Your task to perform on an android device: toggle priority inbox in the gmail app Image 0: 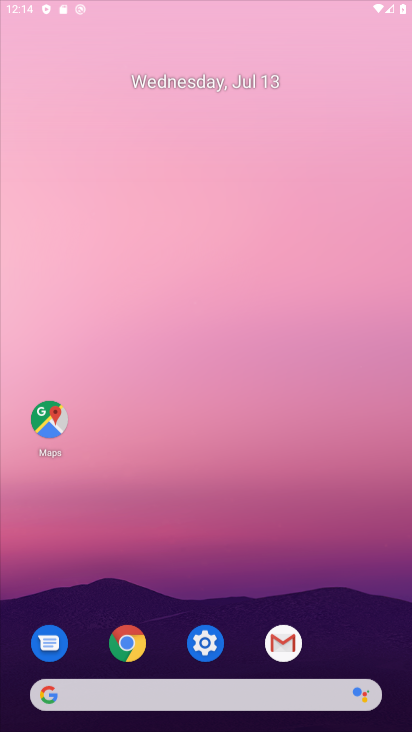
Step 0: click (206, 641)
Your task to perform on an android device: toggle priority inbox in the gmail app Image 1: 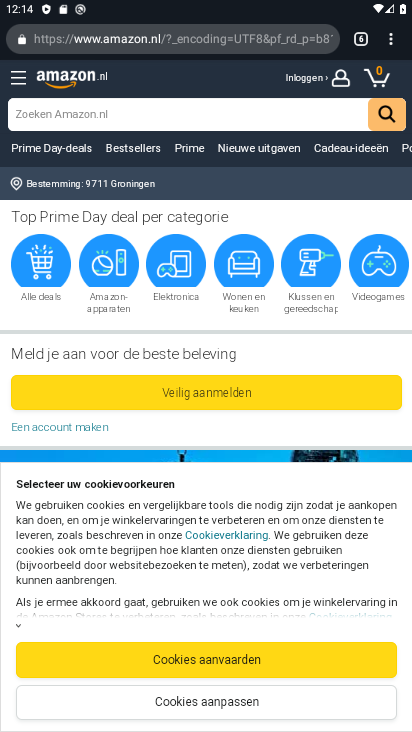
Step 1: press home button
Your task to perform on an android device: toggle priority inbox in the gmail app Image 2: 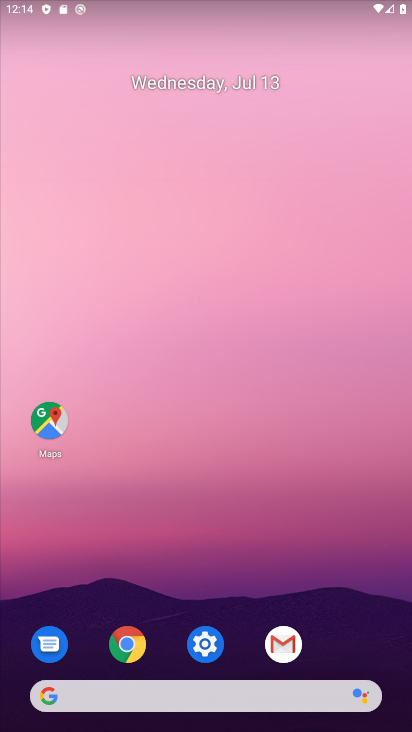
Step 2: click (281, 638)
Your task to perform on an android device: toggle priority inbox in the gmail app Image 3: 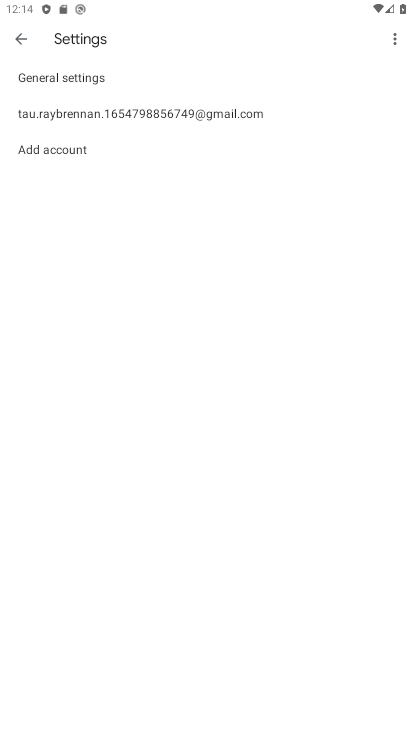
Step 3: click (93, 116)
Your task to perform on an android device: toggle priority inbox in the gmail app Image 4: 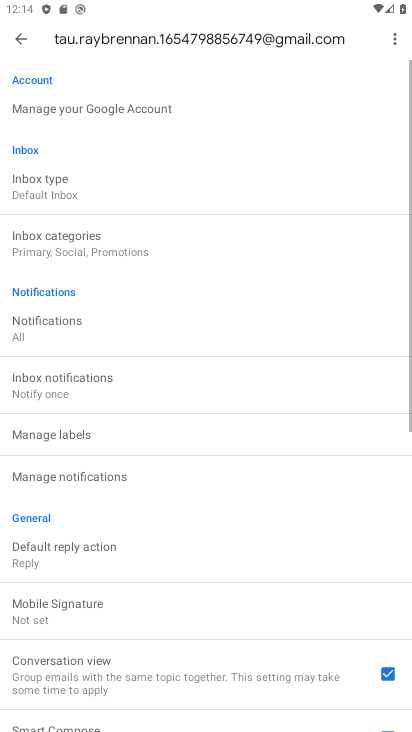
Step 4: click (69, 201)
Your task to perform on an android device: toggle priority inbox in the gmail app Image 5: 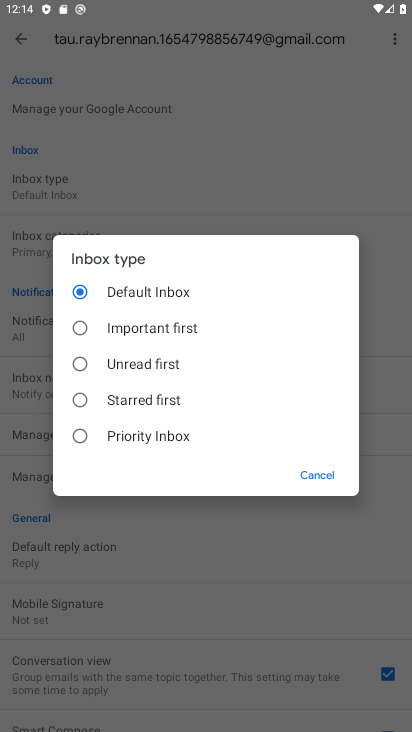
Step 5: click (154, 432)
Your task to perform on an android device: toggle priority inbox in the gmail app Image 6: 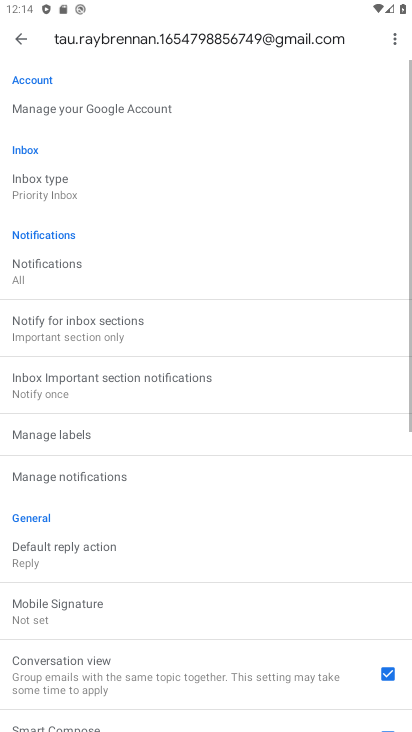
Step 6: click (102, 169)
Your task to perform on an android device: toggle priority inbox in the gmail app Image 7: 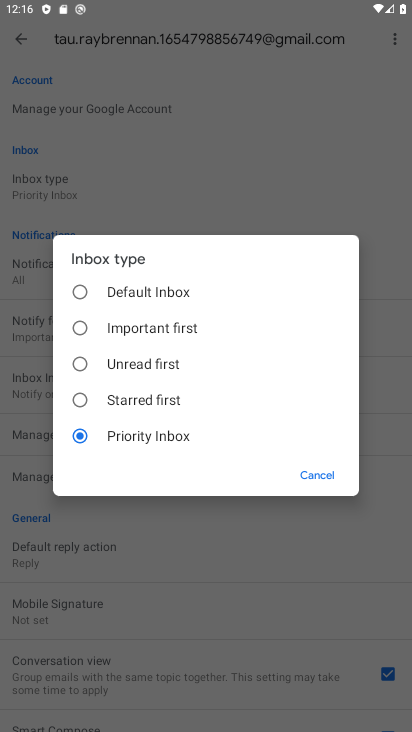
Step 7: task complete